Your task to perform on an android device: Search for a 1/2 in. x 1/2 in. x 24 in. 600 grit sander on Lowes.com Image 0: 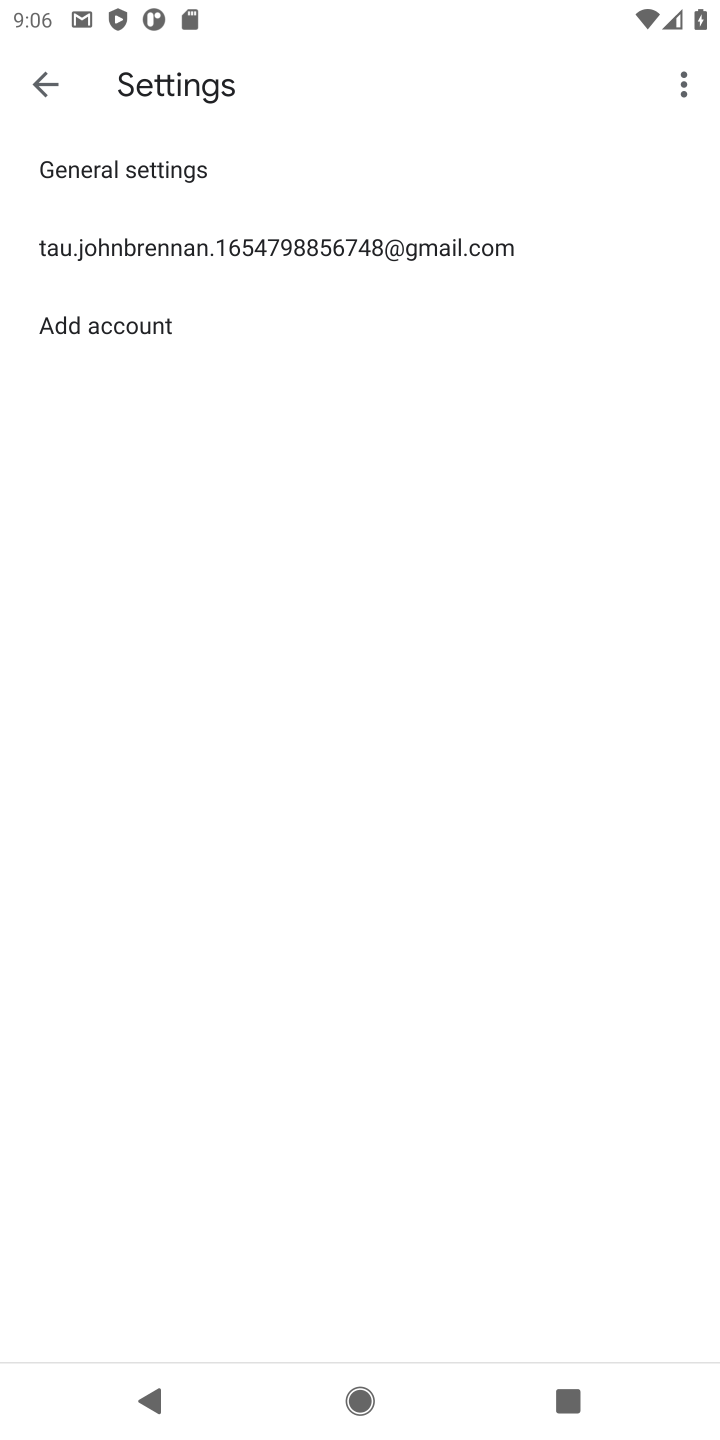
Step 0: press home button
Your task to perform on an android device: Search for a 1/2 in. x 1/2 in. x 24 in. 600 grit sander on Lowes.com Image 1: 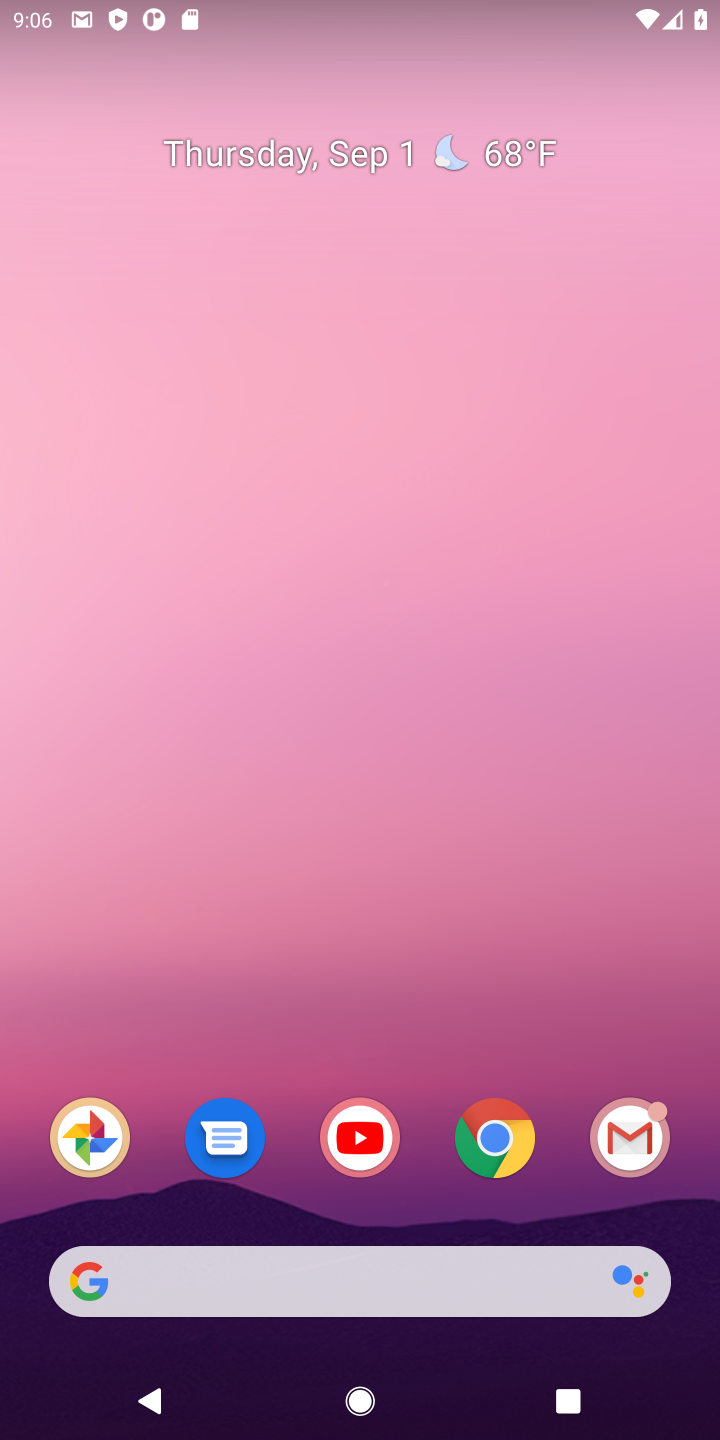
Step 1: click (498, 1138)
Your task to perform on an android device: Search for a 1/2 in. x 1/2 in. x 24 in. 600 grit sander on Lowes.com Image 2: 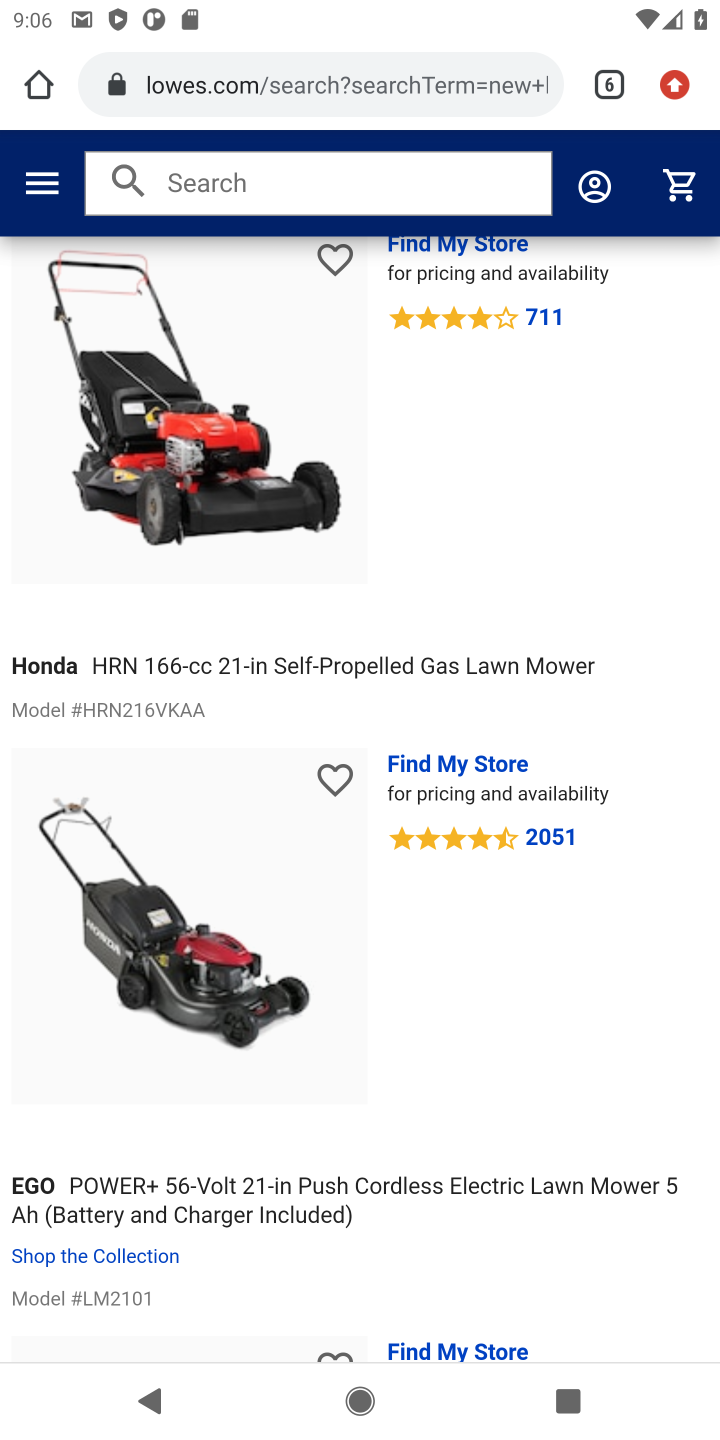
Step 2: click (398, 200)
Your task to perform on an android device: Search for a 1/2 in. x 1/2 in. x 24 in. 600 grit sander on Lowes.com Image 3: 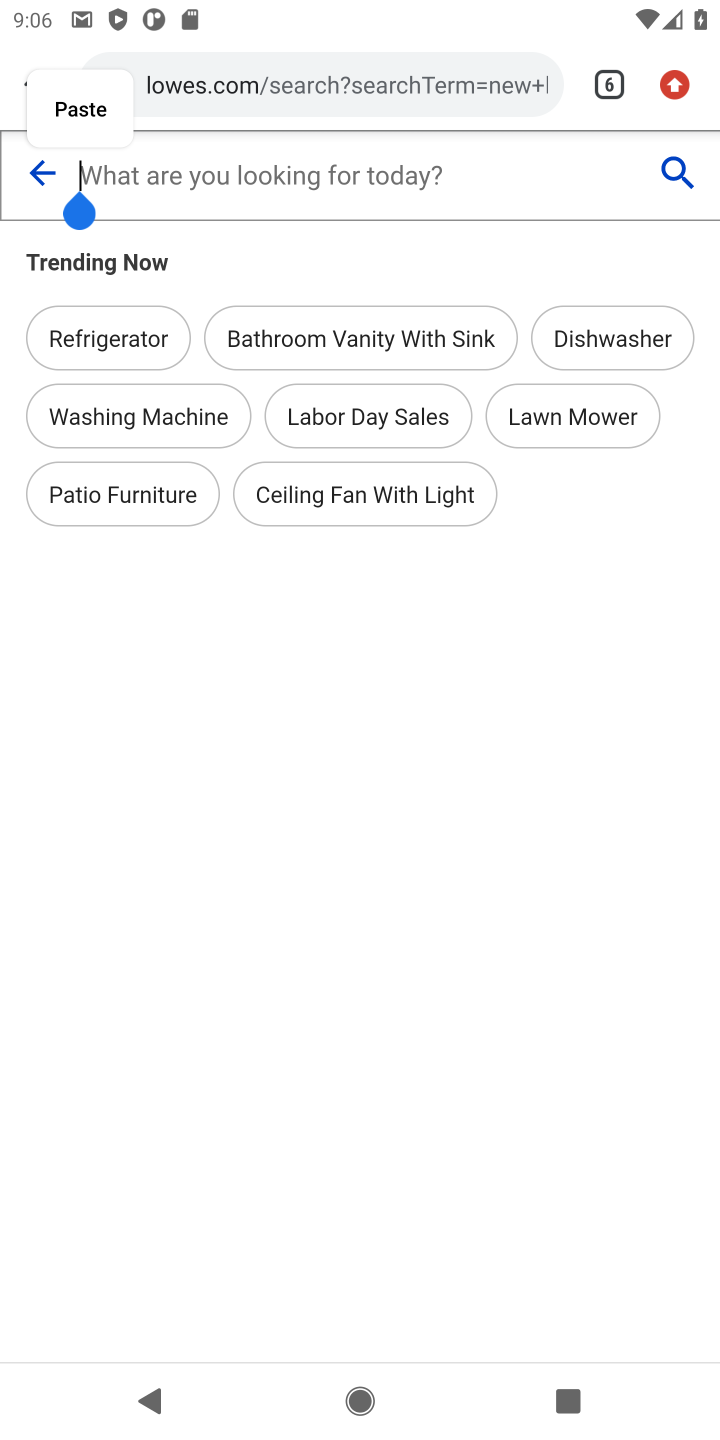
Step 3: type "1/2 in. x 1/2 in. x 24 in. 600 grit sander"
Your task to perform on an android device: Search for a 1/2 in. x 1/2 in. x 24 in. 600 grit sander on Lowes.com Image 4: 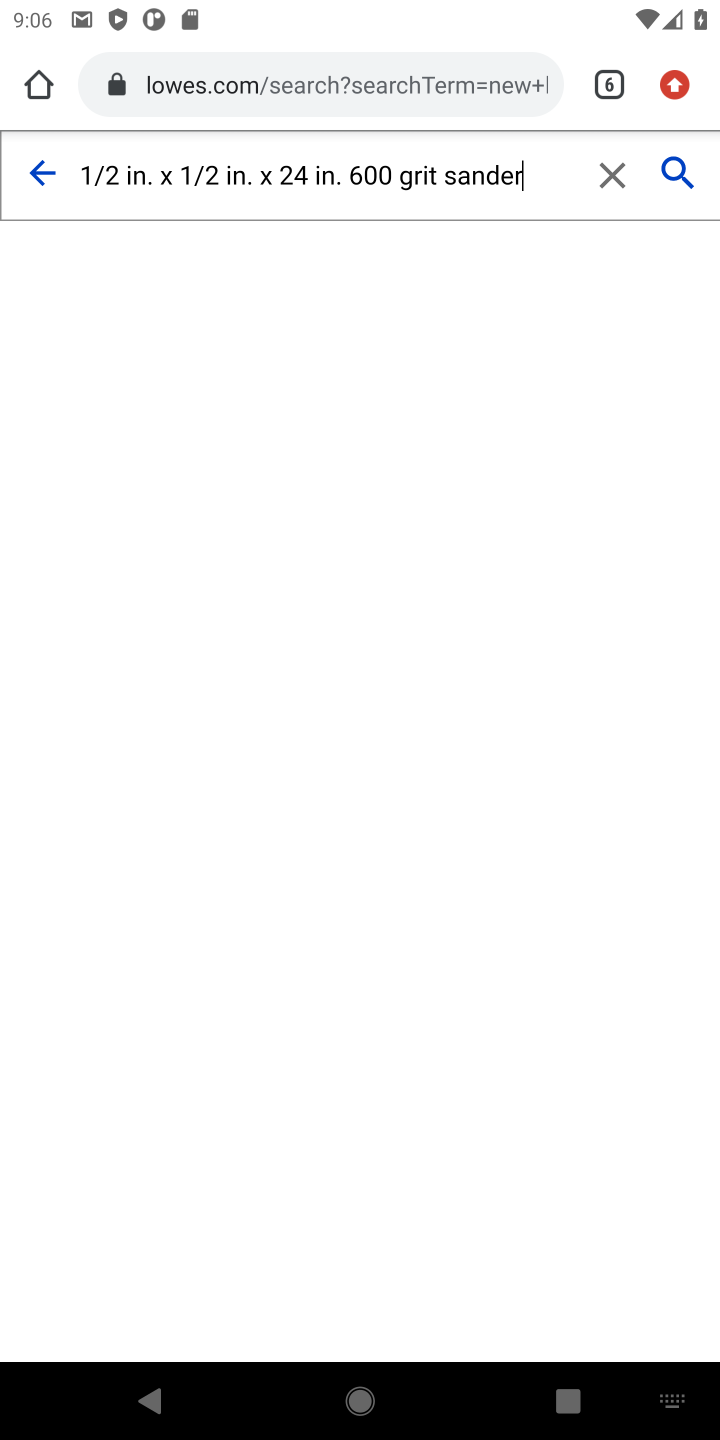
Step 4: click (688, 167)
Your task to perform on an android device: Search for a 1/2 in. x 1/2 in. x 24 in. 600 grit sander on Lowes.com Image 5: 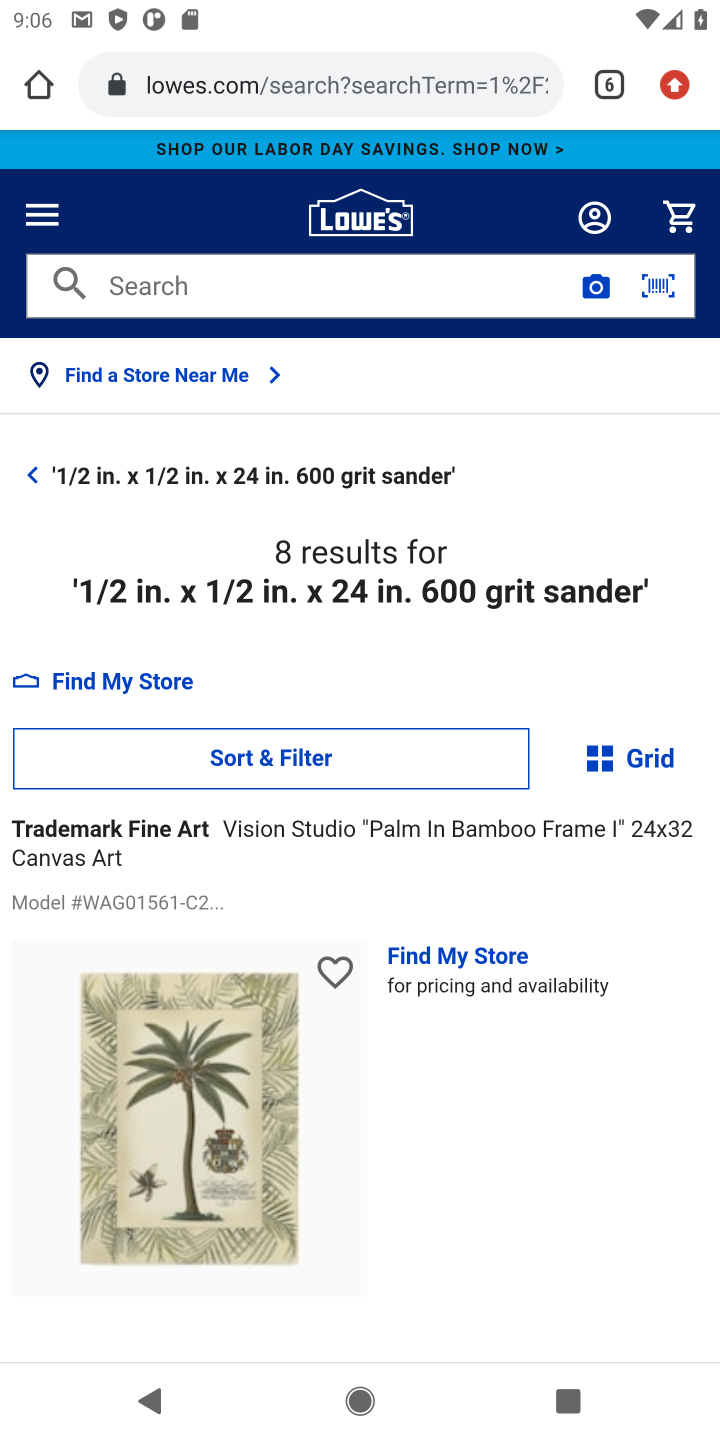
Step 5: task complete